Your task to perform on an android device: Go to wifi settings Image 0: 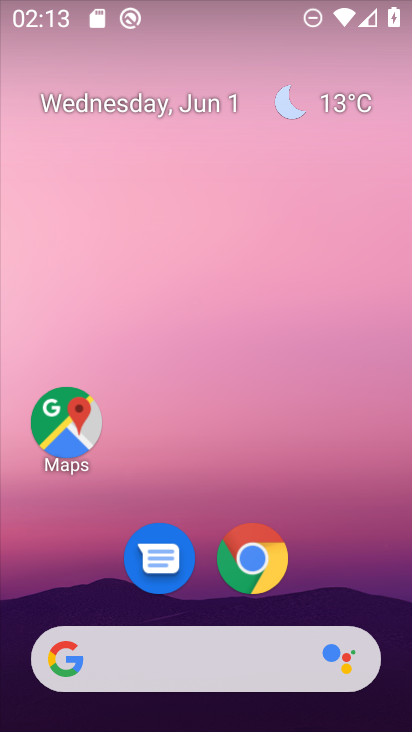
Step 0: drag from (383, 655) to (313, 73)
Your task to perform on an android device: Go to wifi settings Image 1: 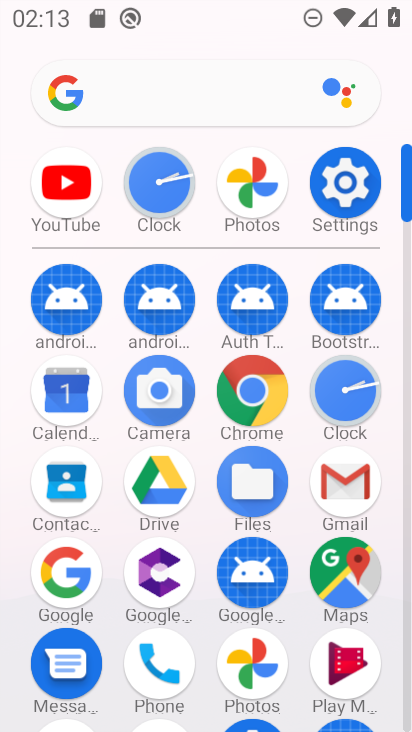
Step 1: click (356, 184)
Your task to perform on an android device: Go to wifi settings Image 2: 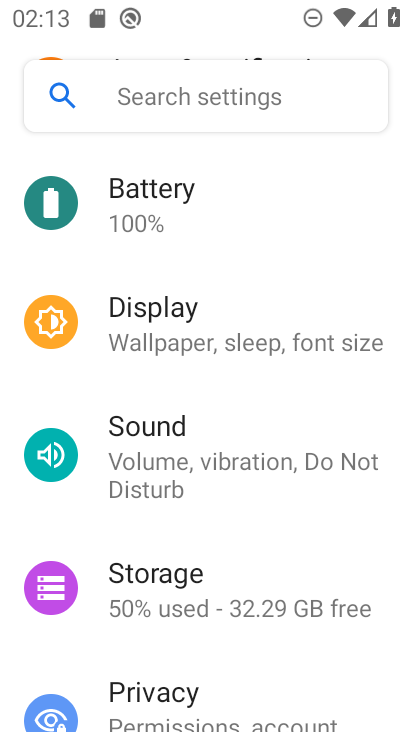
Step 2: drag from (233, 278) to (256, 580)
Your task to perform on an android device: Go to wifi settings Image 3: 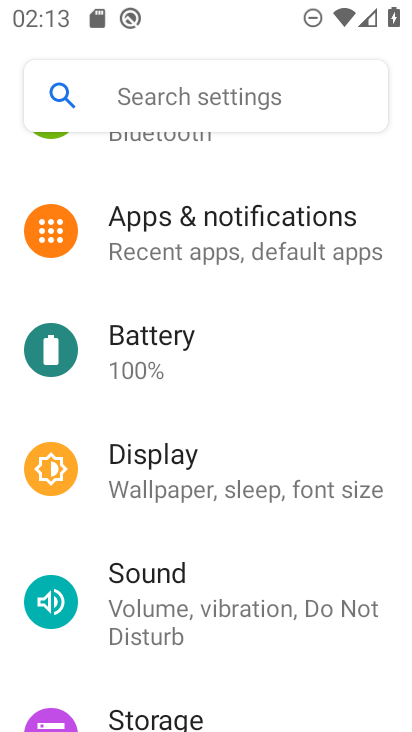
Step 3: drag from (245, 233) to (262, 572)
Your task to perform on an android device: Go to wifi settings Image 4: 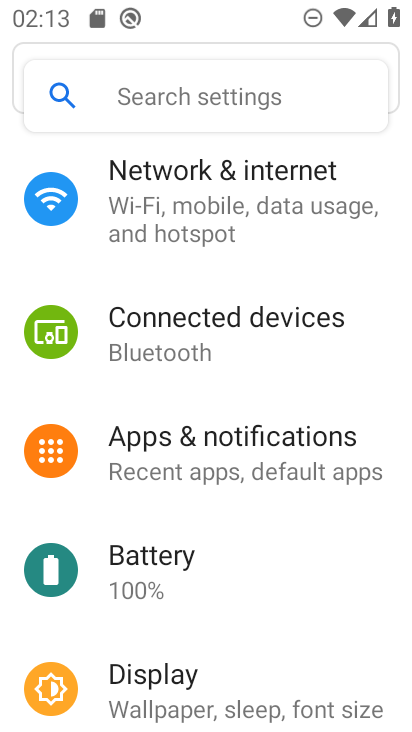
Step 4: click (197, 177)
Your task to perform on an android device: Go to wifi settings Image 5: 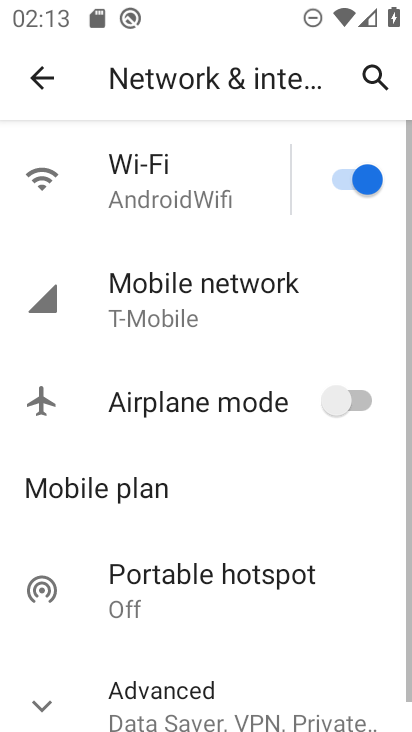
Step 5: click (238, 214)
Your task to perform on an android device: Go to wifi settings Image 6: 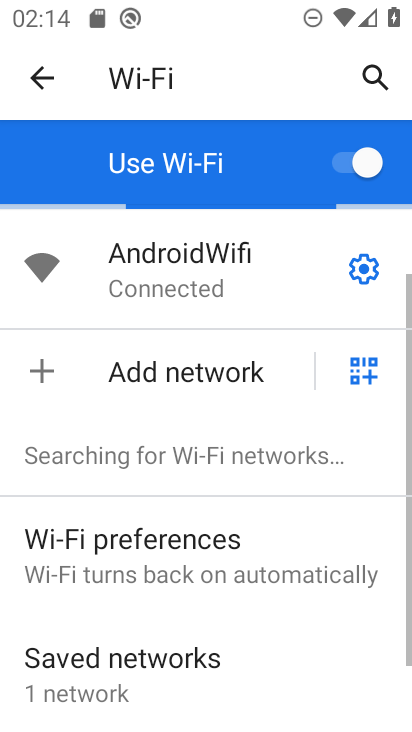
Step 6: click (369, 268)
Your task to perform on an android device: Go to wifi settings Image 7: 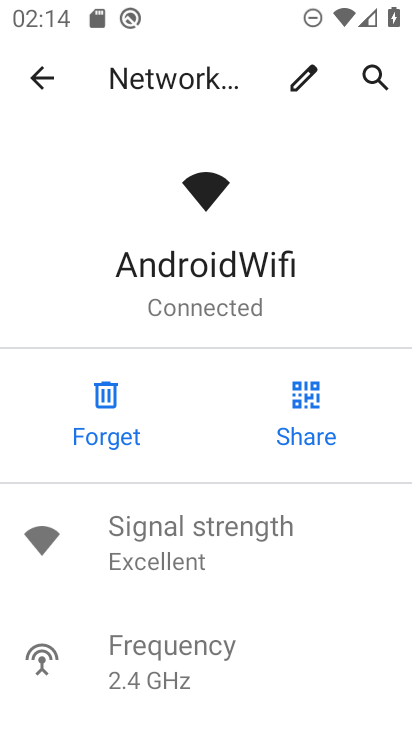
Step 7: task complete